Your task to perform on an android device: stop showing notifications on the lock screen Image 0: 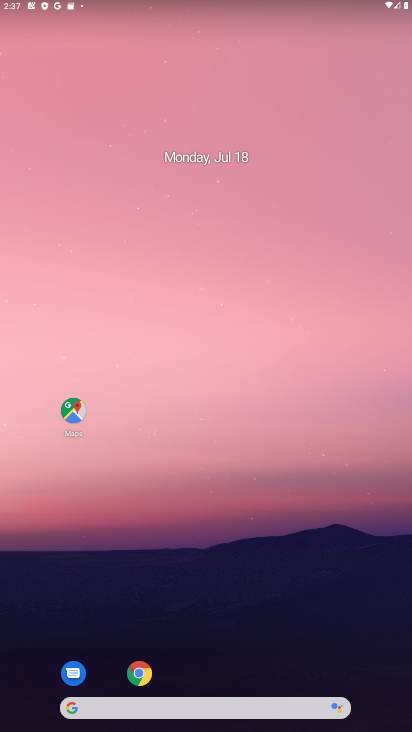
Step 0: drag from (217, 709) to (229, 107)
Your task to perform on an android device: stop showing notifications on the lock screen Image 1: 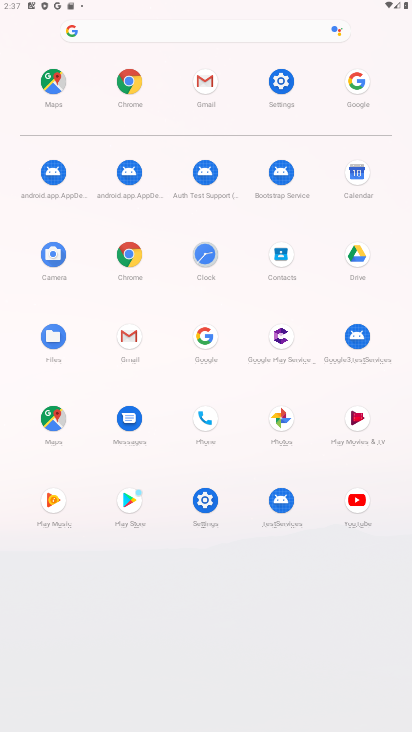
Step 1: click (280, 82)
Your task to perform on an android device: stop showing notifications on the lock screen Image 2: 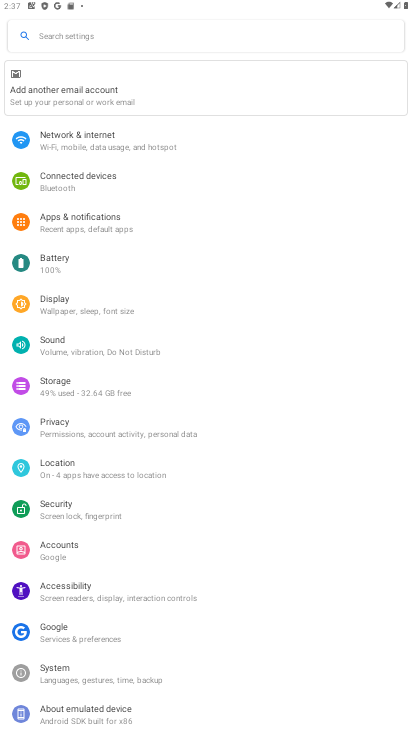
Step 2: click (107, 225)
Your task to perform on an android device: stop showing notifications on the lock screen Image 3: 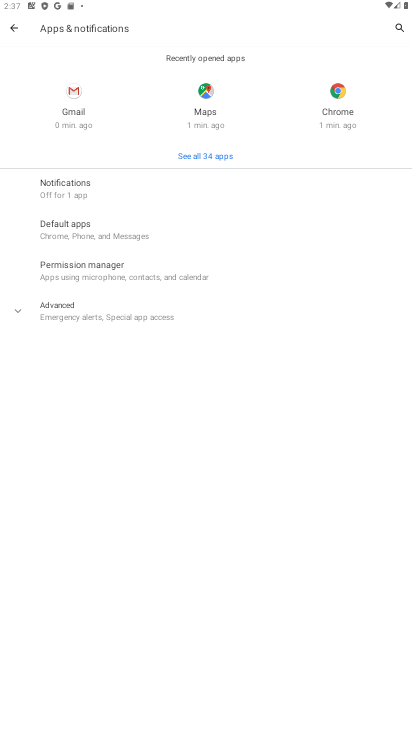
Step 3: click (71, 190)
Your task to perform on an android device: stop showing notifications on the lock screen Image 4: 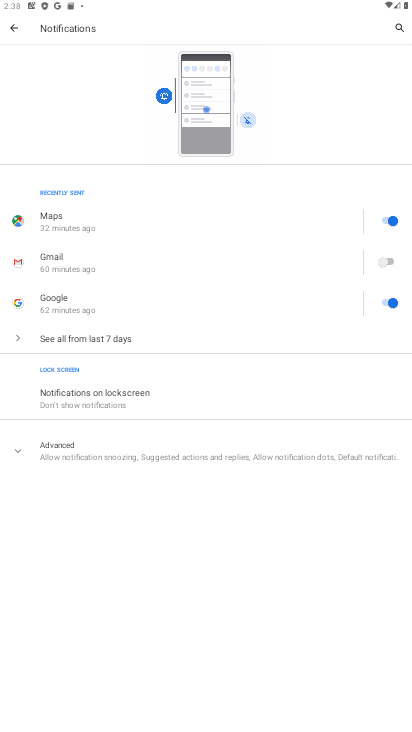
Step 4: click (134, 394)
Your task to perform on an android device: stop showing notifications on the lock screen Image 5: 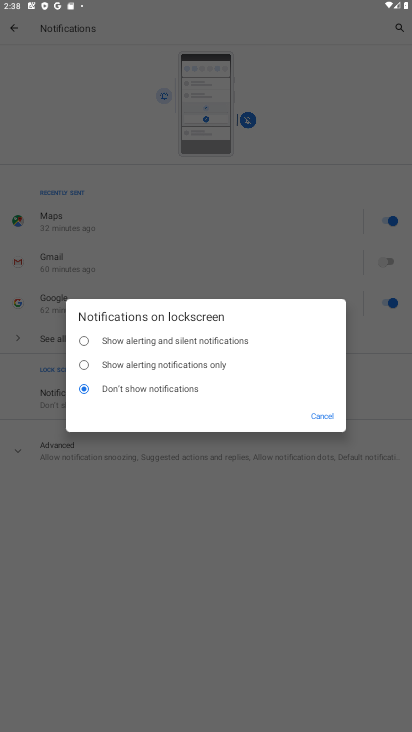
Step 5: click (80, 387)
Your task to perform on an android device: stop showing notifications on the lock screen Image 6: 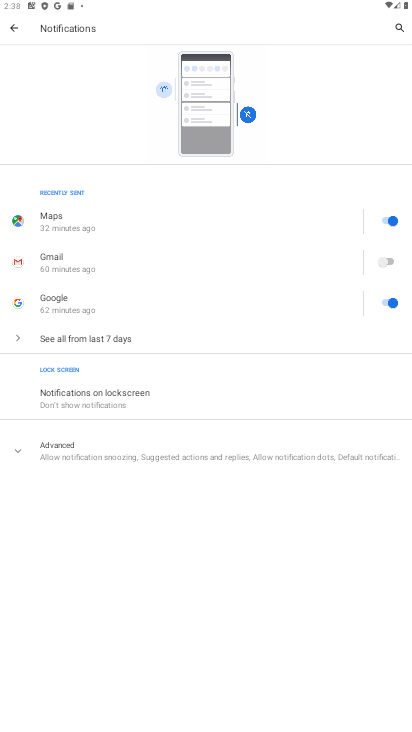
Step 6: task complete